Your task to perform on an android device: Open Wikipedia Image 0: 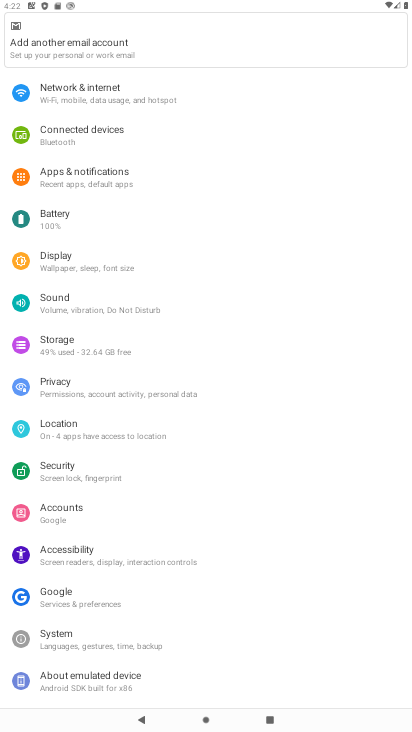
Step 0: press home button
Your task to perform on an android device: Open Wikipedia Image 1: 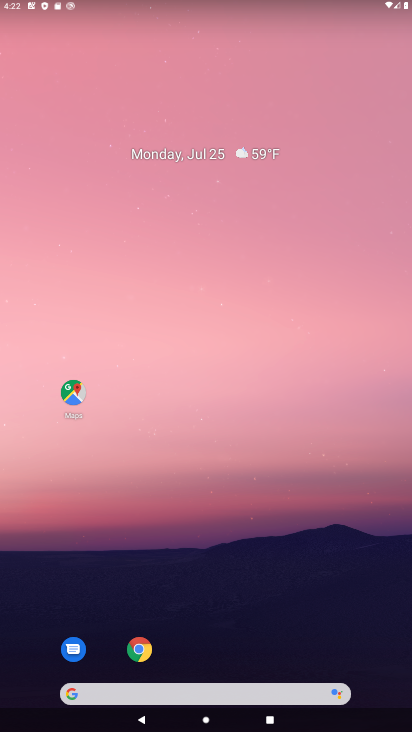
Step 1: drag from (215, 584) to (310, 0)
Your task to perform on an android device: Open Wikipedia Image 2: 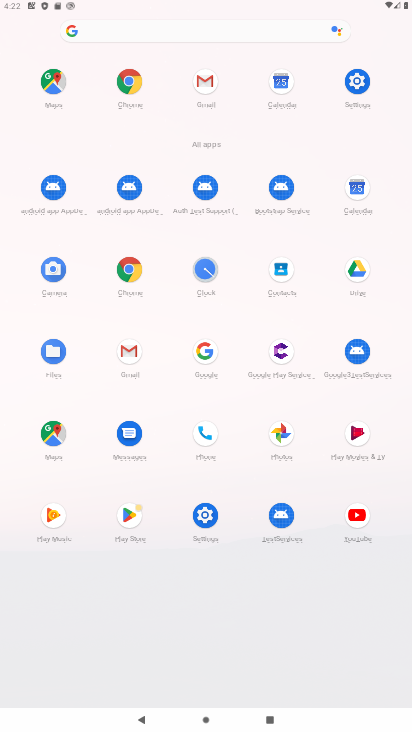
Step 2: click (131, 90)
Your task to perform on an android device: Open Wikipedia Image 3: 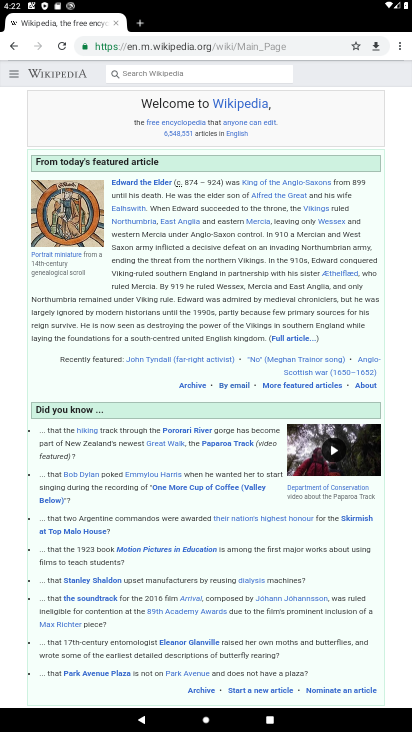
Step 3: task complete